Your task to perform on an android device: Go to wifi settings Image 0: 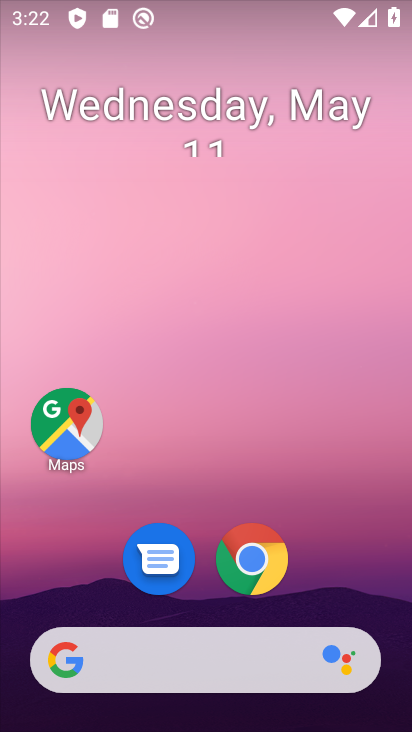
Step 0: drag from (329, 694) to (261, 202)
Your task to perform on an android device: Go to wifi settings Image 1: 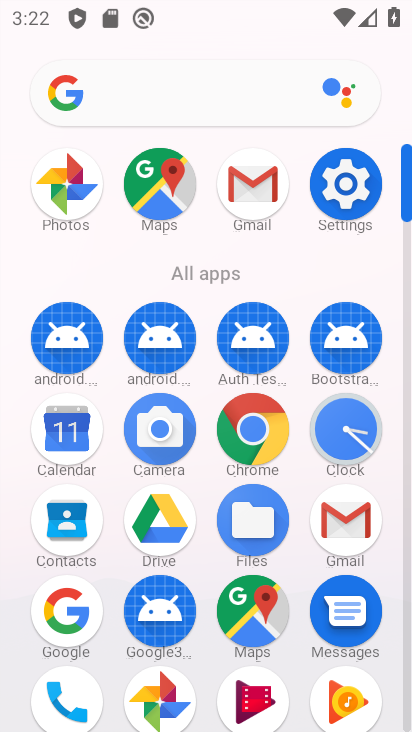
Step 1: click (341, 179)
Your task to perform on an android device: Go to wifi settings Image 2: 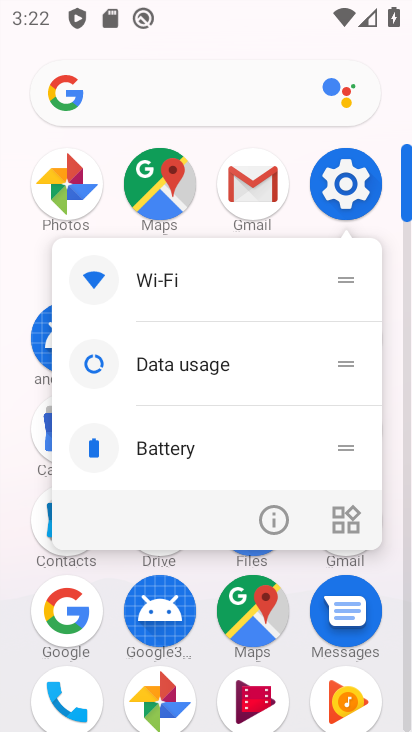
Step 2: click (165, 279)
Your task to perform on an android device: Go to wifi settings Image 3: 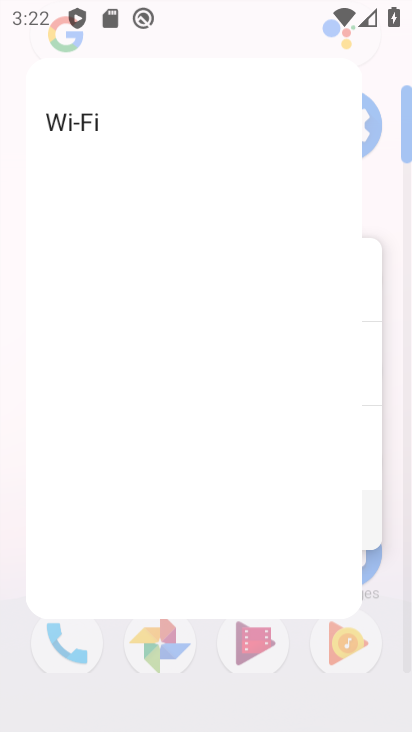
Step 3: click (168, 274)
Your task to perform on an android device: Go to wifi settings Image 4: 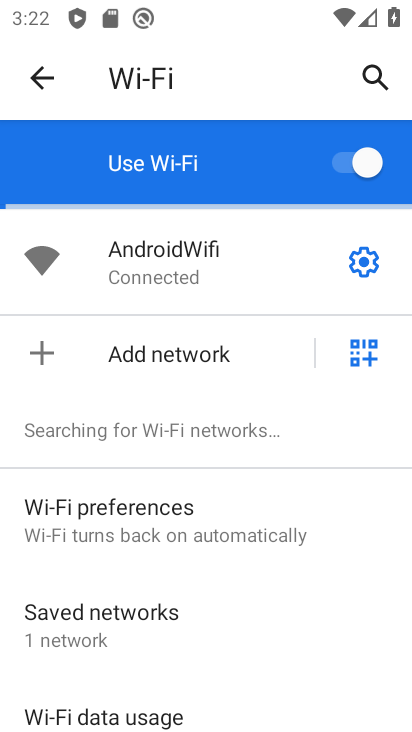
Step 4: task complete